Your task to perform on an android device: Is it going to rain this weekend? Image 0: 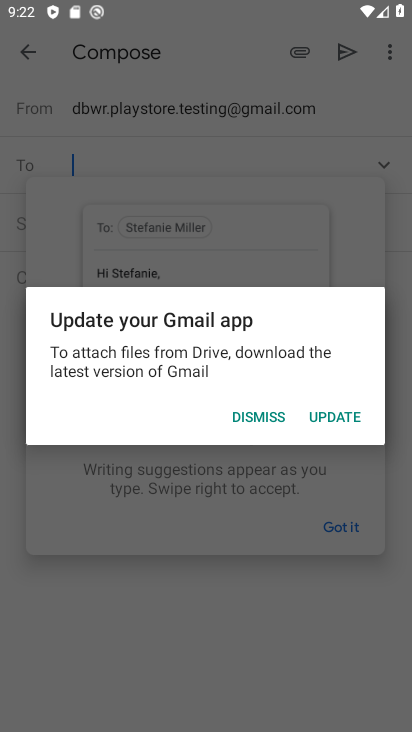
Step 0: press home button
Your task to perform on an android device: Is it going to rain this weekend? Image 1: 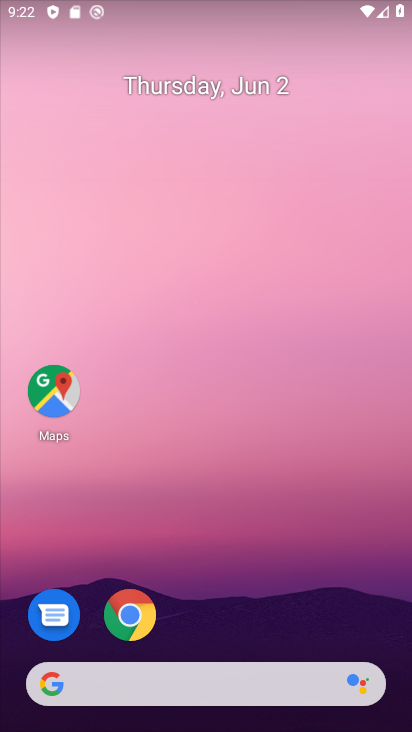
Step 1: click (128, 617)
Your task to perform on an android device: Is it going to rain this weekend? Image 2: 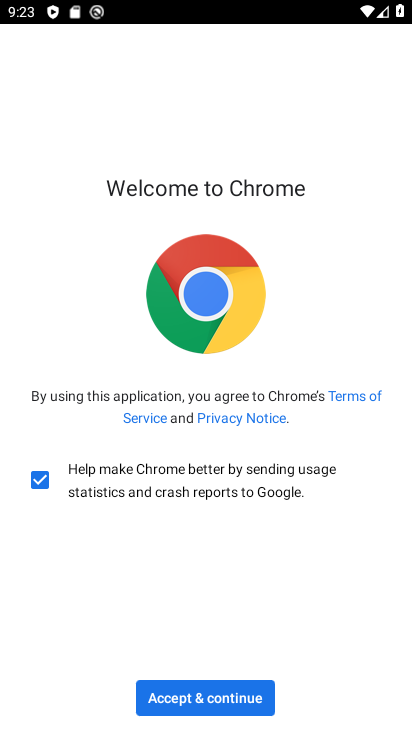
Step 2: click (217, 701)
Your task to perform on an android device: Is it going to rain this weekend? Image 3: 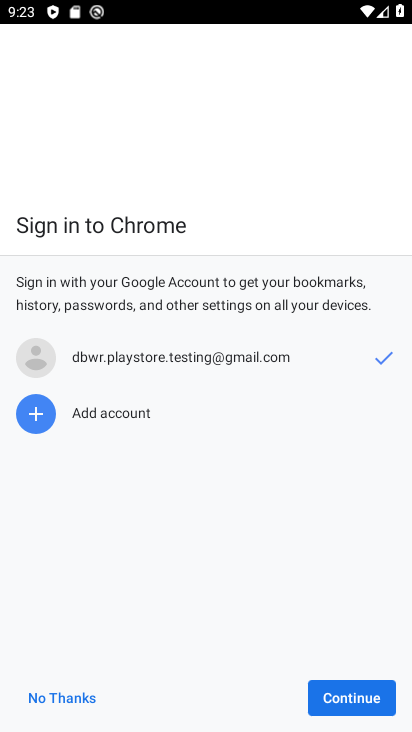
Step 3: click (368, 692)
Your task to perform on an android device: Is it going to rain this weekend? Image 4: 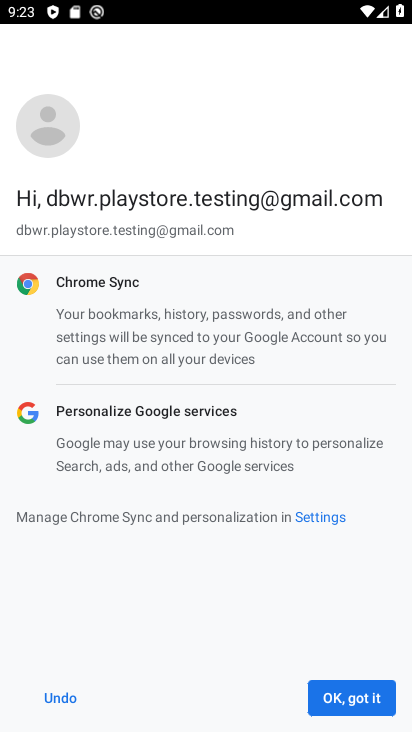
Step 4: click (330, 712)
Your task to perform on an android device: Is it going to rain this weekend? Image 5: 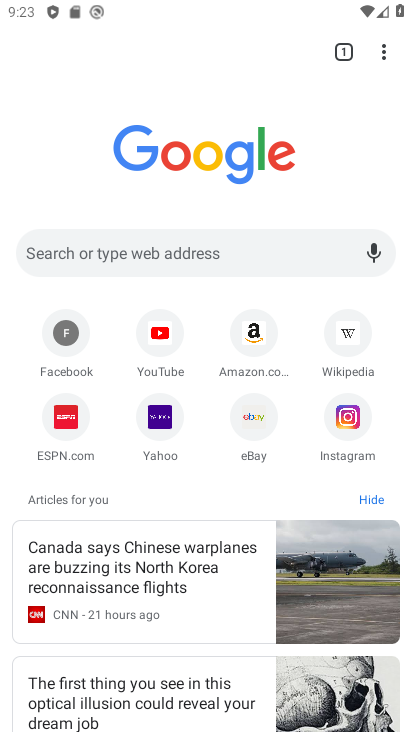
Step 5: type "Is it going to rain this weekend?"
Your task to perform on an android device: Is it going to rain this weekend? Image 6: 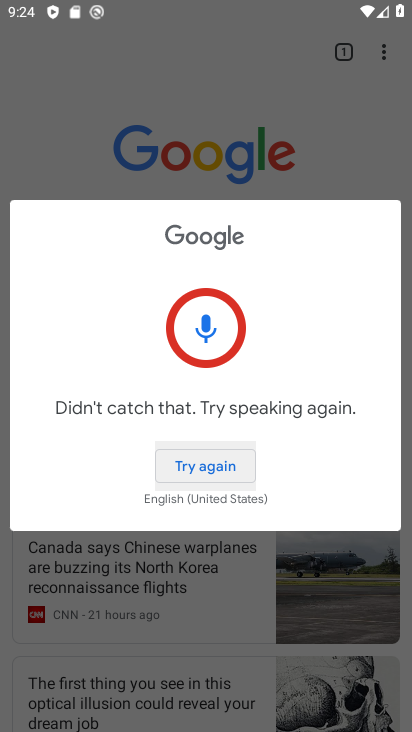
Step 6: click (299, 170)
Your task to perform on an android device: Is it going to rain this weekend? Image 7: 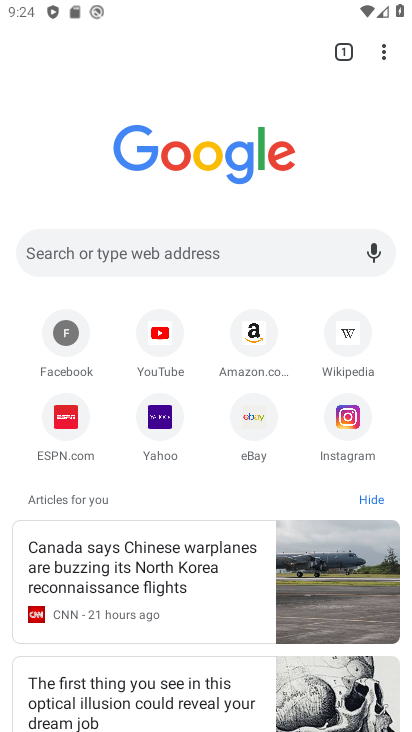
Step 7: click (154, 250)
Your task to perform on an android device: Is it going to rain this weekend? Image 8: 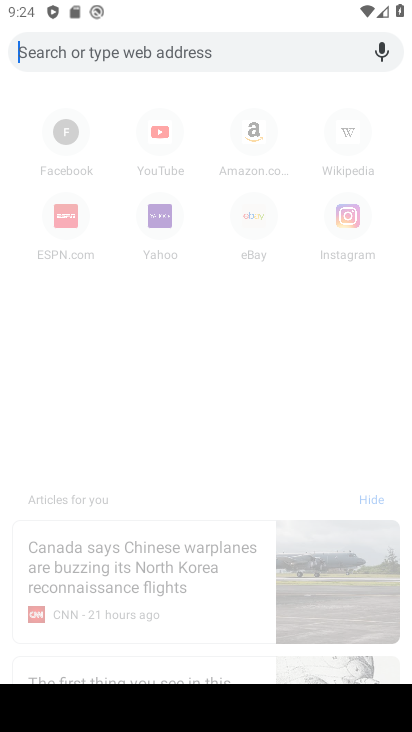
Step 8: type "Is it going to rain this weekend?"
Your task to perform on an android device: Is it going to rain this weekend? Image 9: 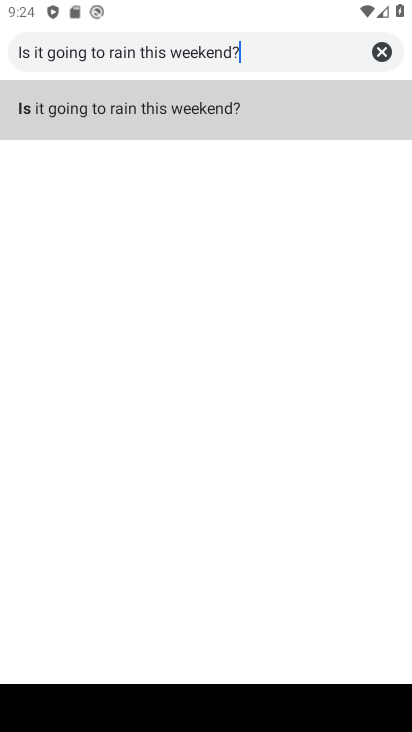
Step 9: click (250, 102)
Your task to perform on an android device: Is it going to rain this weekend? Image 10: 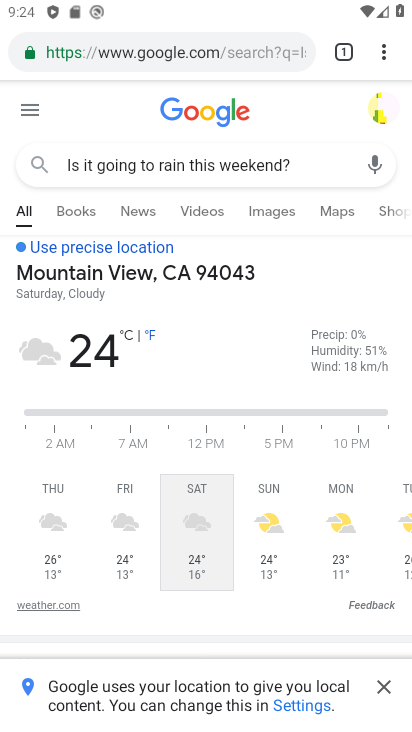
Step 10: task complete